Your task to perform on an android device: Find coffee shops on Maps Image 0: 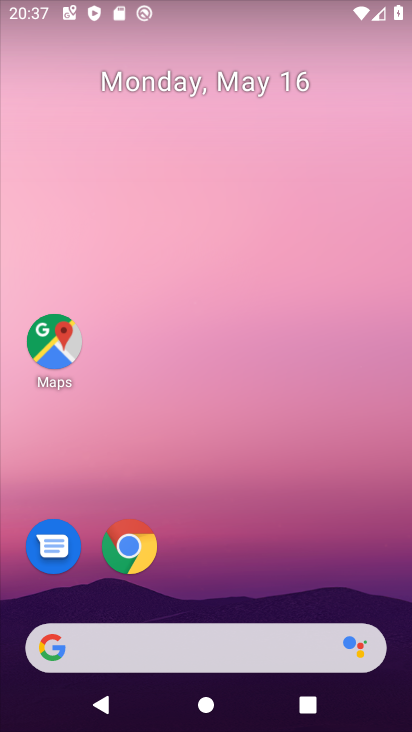
Step 0: click (60, 337)
Your task to perform on an android device: Find coffee shops on Maps Image 1: 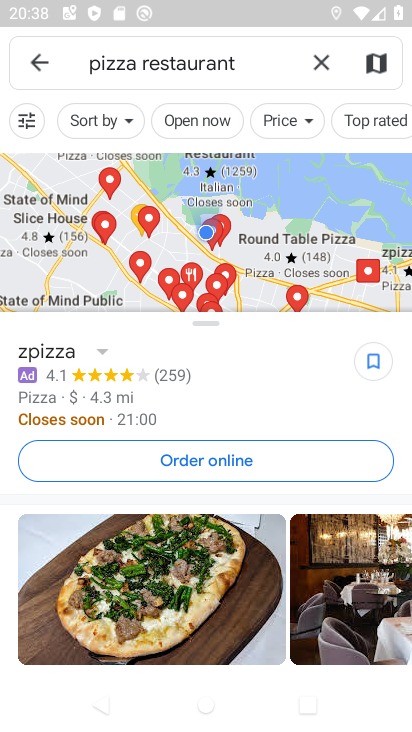
Step 1: click (310, 65)
Your task to perform on an android device: Find coffee shops on Maps Image 2: 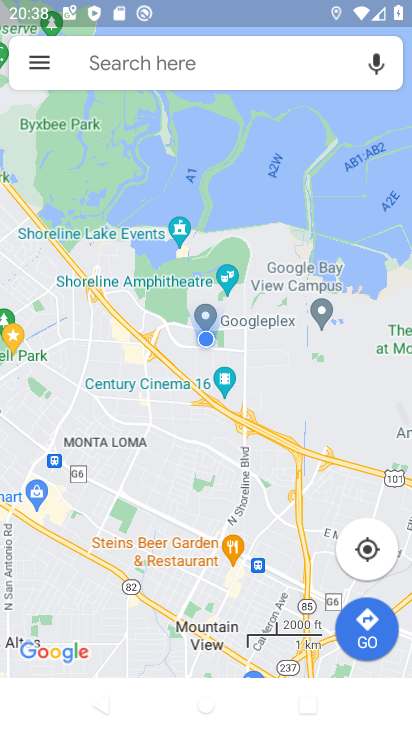
Step 2: click (283, 69)
Your task to perform on an android device: Find coffee shops on Maps Image 3: 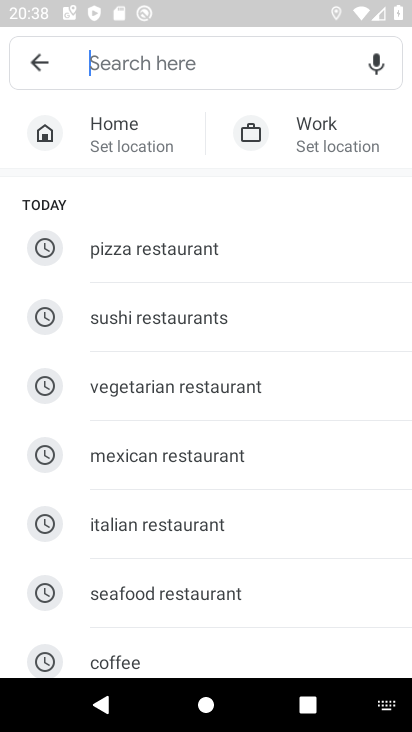
Step 3: click (239, 659)
Your task to perform on an android device: Find coffee shops on Maps Image 4: 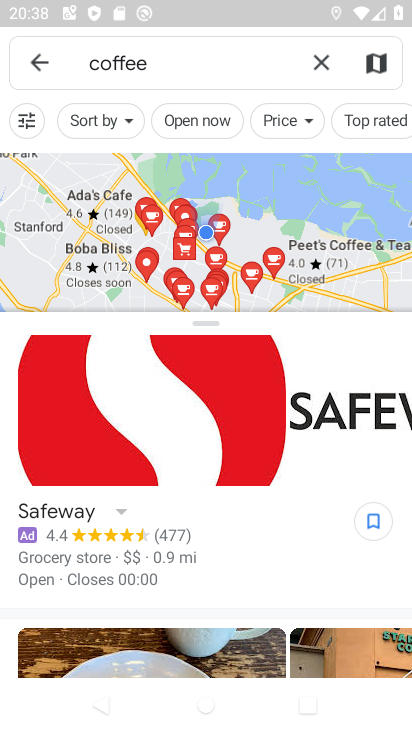
Step 4: task complete